Your task to perform on an android device: open the mobile data screen to see how much data has been used Image 0: 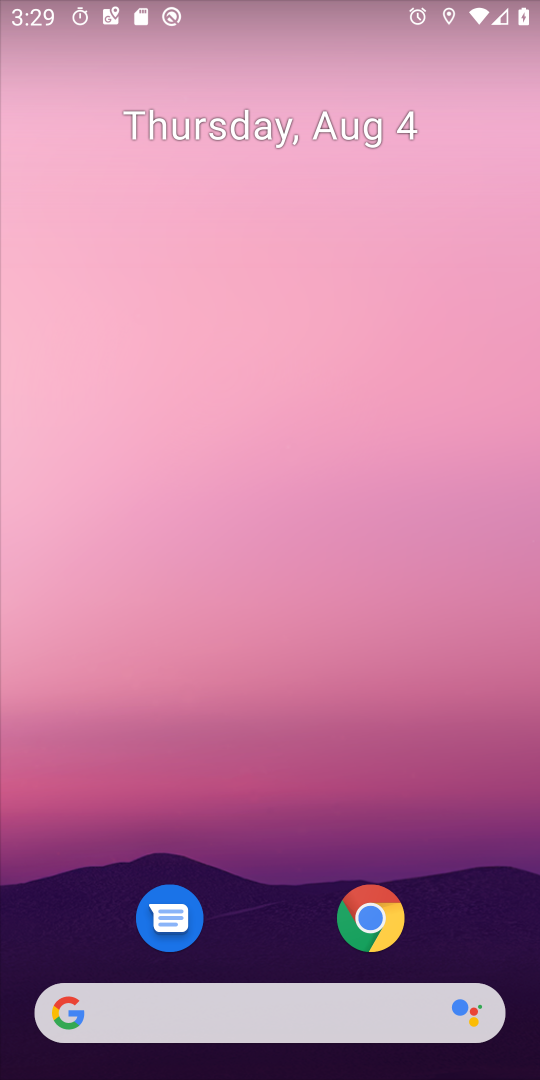
Step 0: drag from (264, 779) to (264, 283)
Your task to perform on an android device: open the mobile data screen to see how much data has been used Image 1: 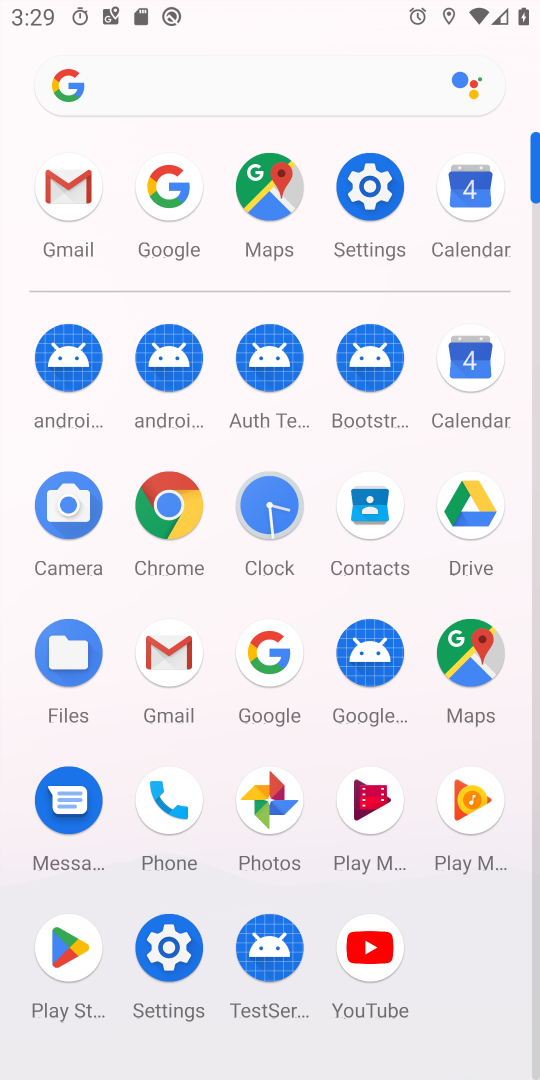
Step 1: click (362, 178)
Your task to perform on an android device: open the mobile data screen to see how much data has been used Image 2: 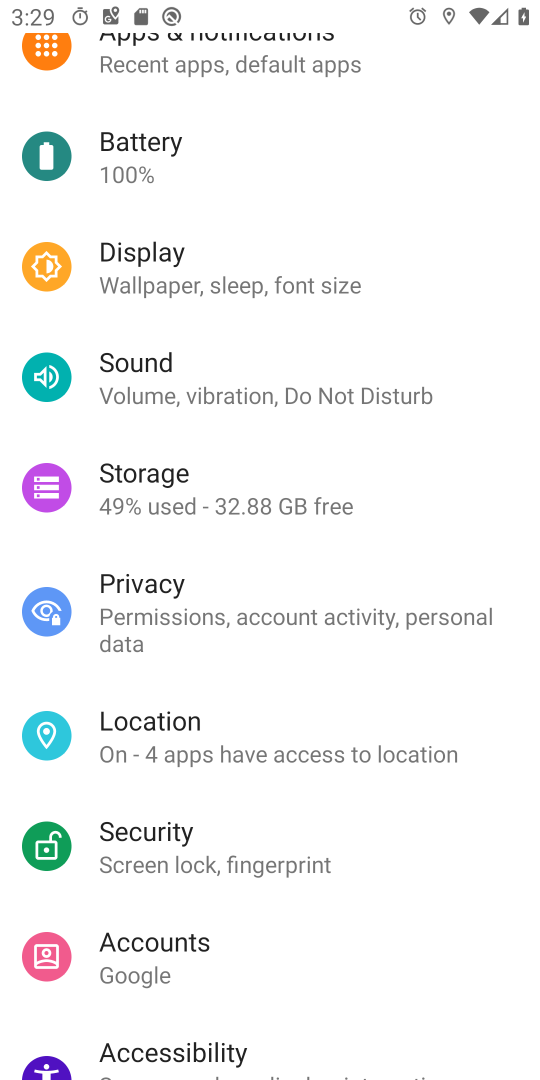
Step 2: drag from (236, 160) to (280, 668)
Your task to perform on an android device: open the mobile data screen to see how much data has been used Image 3: 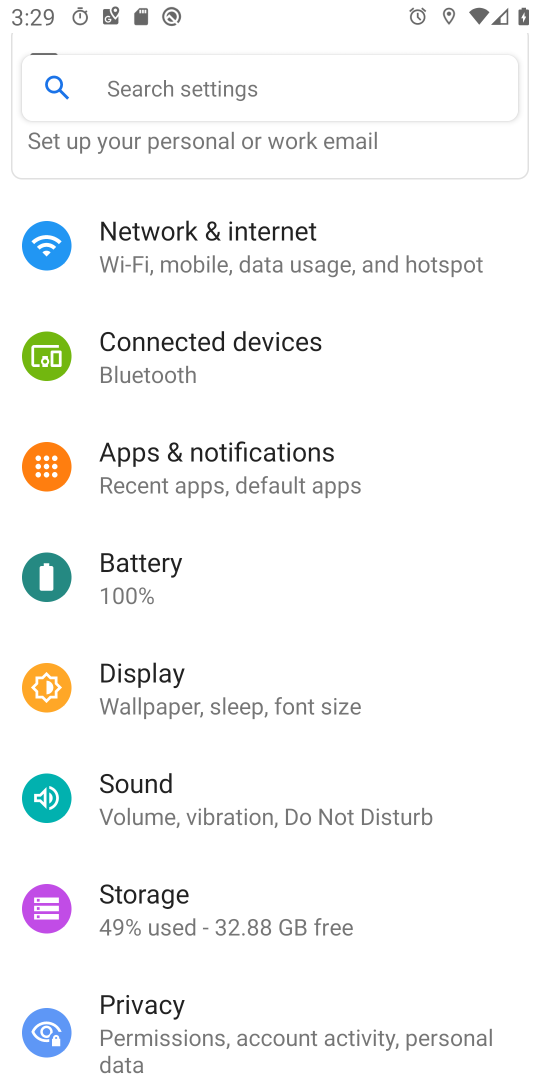
Step 3: click (196, 274)
Your task to perform on an android device: open the mobile data screen to see how much data has been used Image 4: 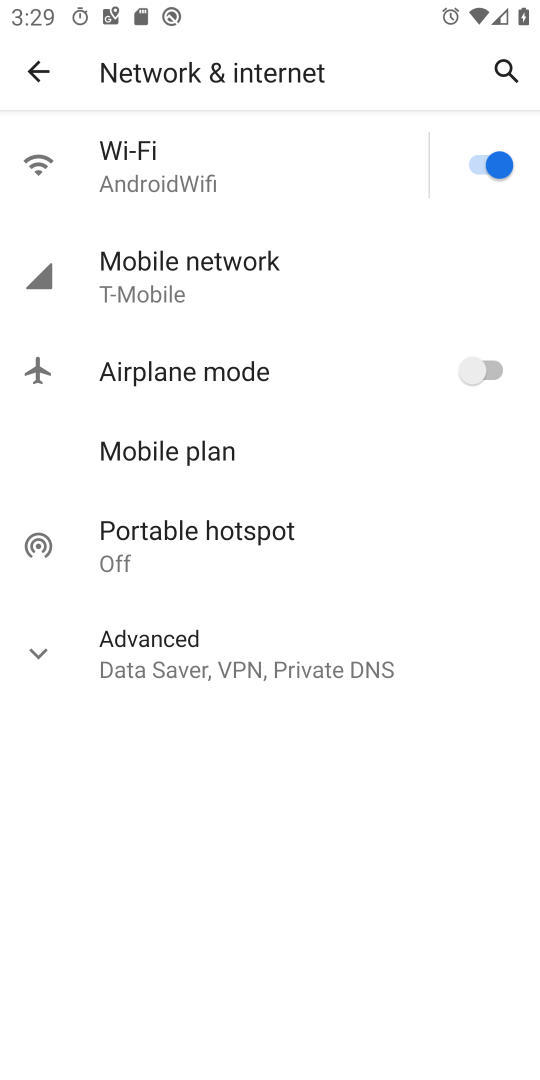
Step 4: click (196, 274)
Your task to perform on an android device: open the mobile data screen to see how much data has been used Image 5: 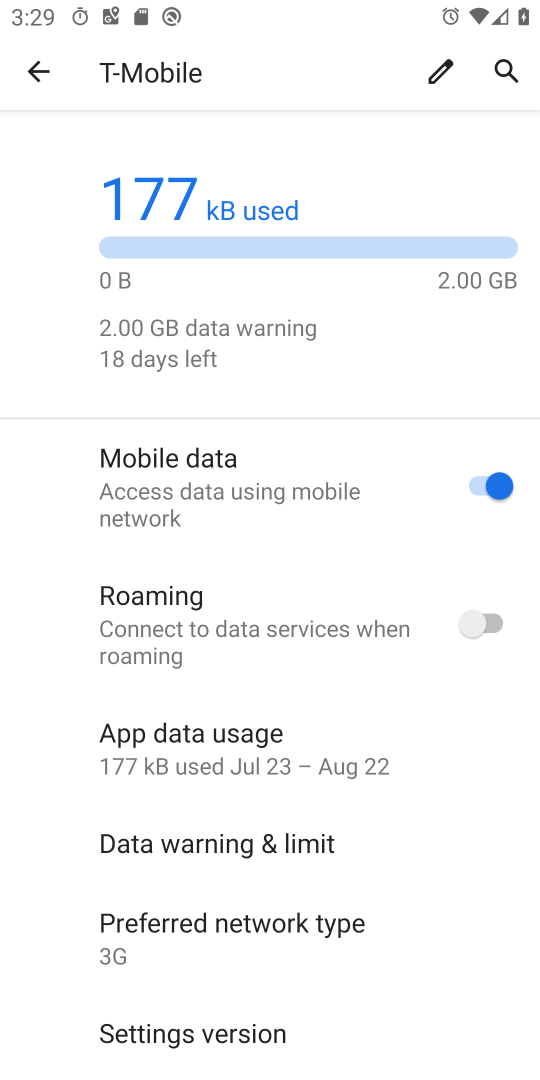
Step 5: click (280, 729)
Your task to perform on an android device: open the mobile data screen to see how much data has been used Image 6: 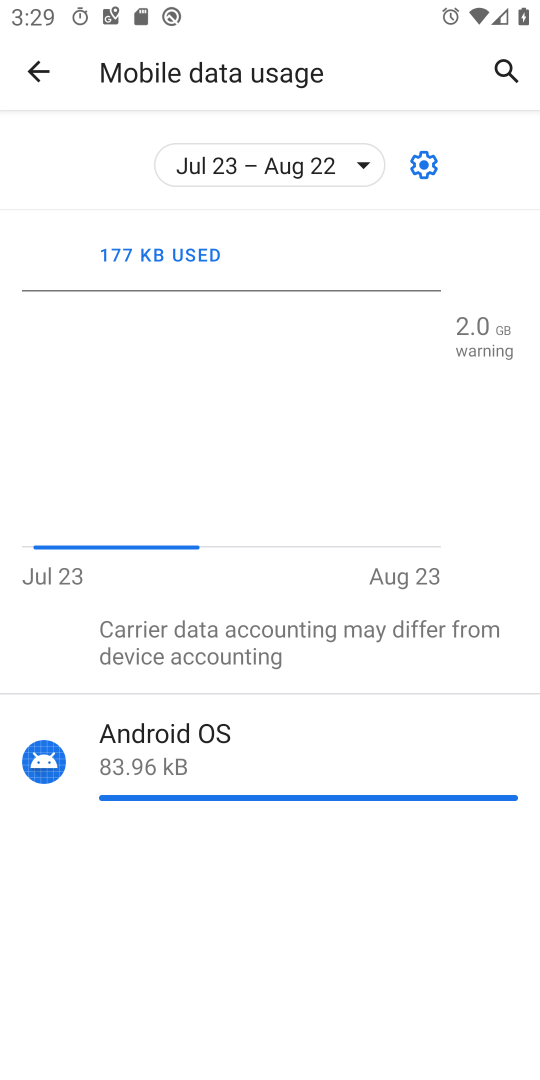
Step 6: task complete